Your task to perform on an android device: open device folders in google photos Image 0: 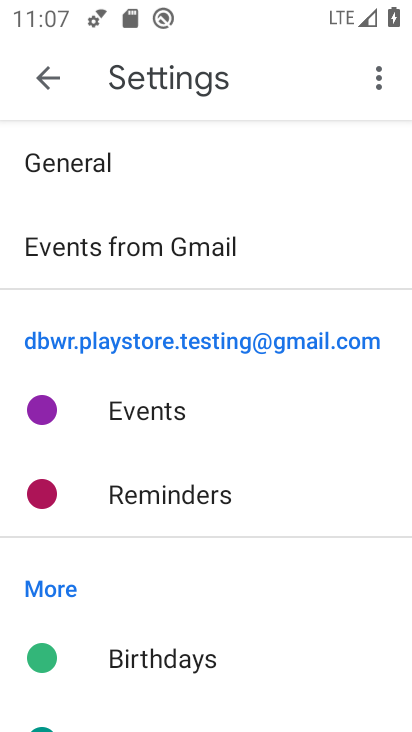
Step 0: press home button
Your task to perform on an android device: open device folders in google photos Image 1: 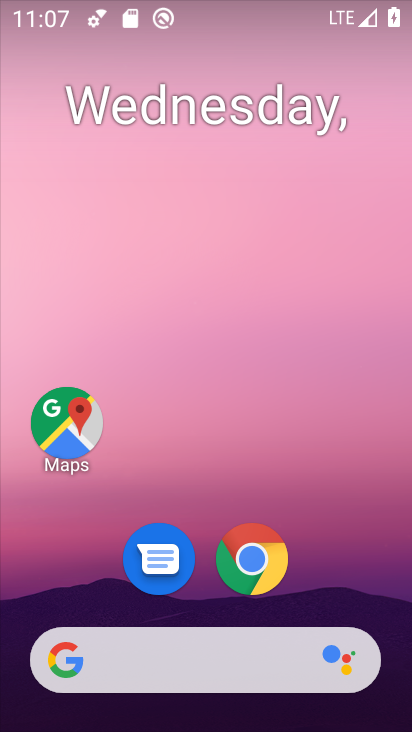
Step 1: drag from (231, 693) to (253, 254)
Your task to perform on an android device: open device folders in google photos Image 2: 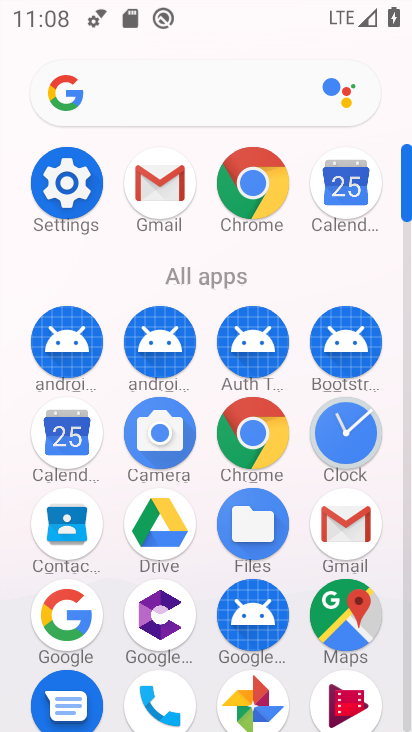
Step 2: click (255, 684)
Your task to perform on an android device: open device folders in google photos Image 3: 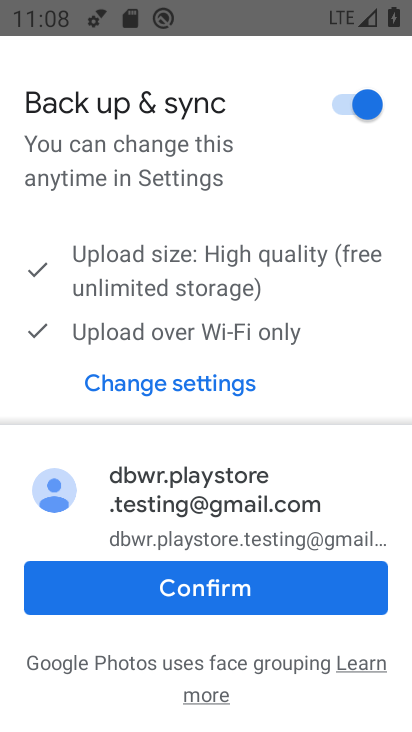
Step 3: click (229, 584)
Your task to perform on an android device: open device folders in google photos Image 4: 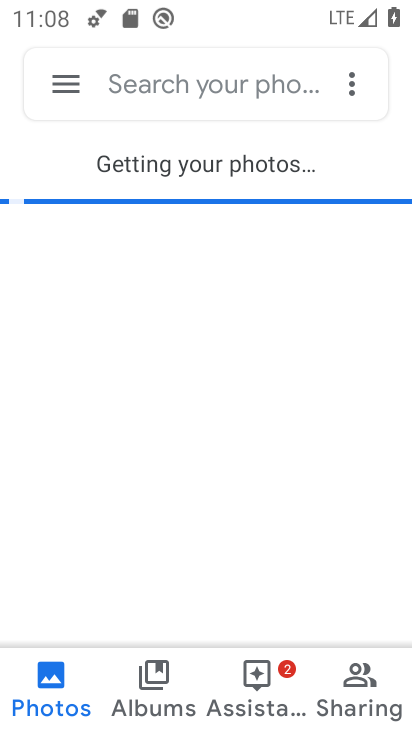
Step 4: click (62, 85)
Your task to perform on an android device: open device folders in google photos Image 5: 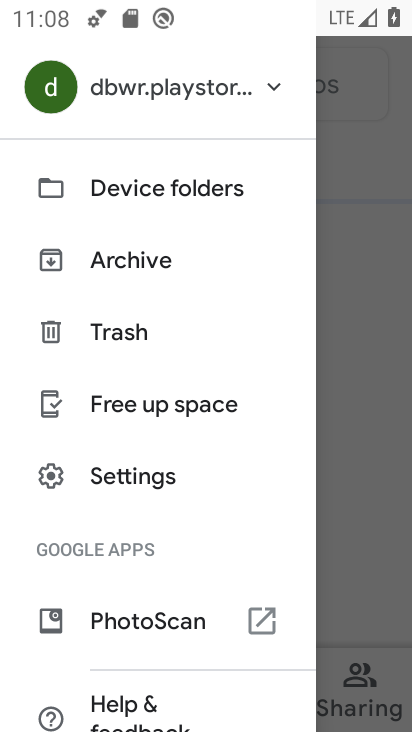
Step 5: click (172, 191)
Your task to perform on an android device: open device folders in google photos Image 6: 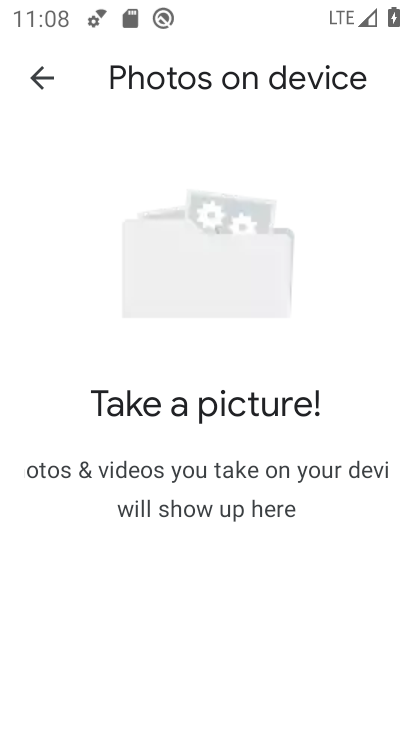
Step 6: task complete